Your task to perform on an android device: toggle javascript in the chrome app Image 0: 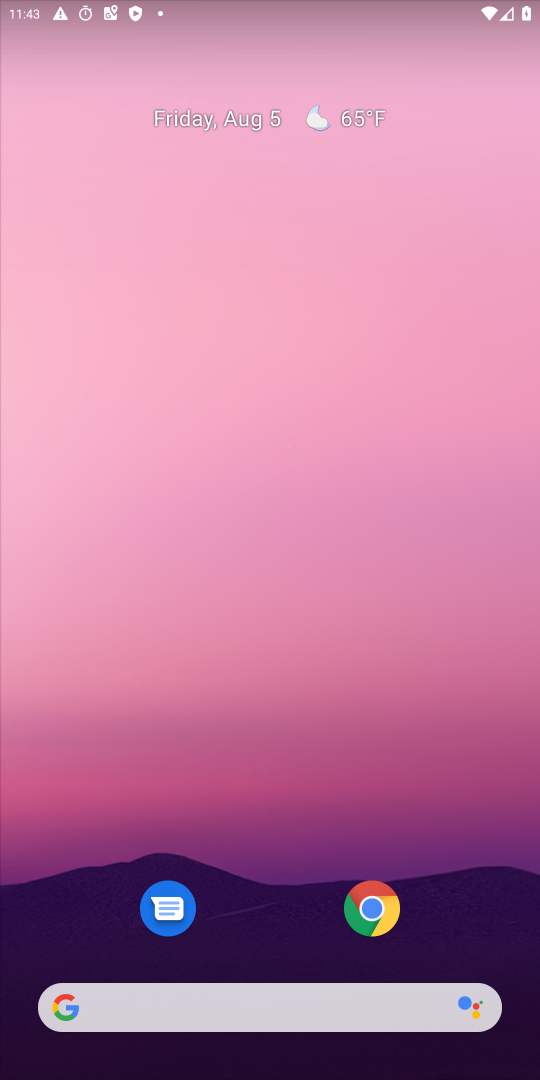
Step 0: click (380, 911)
Your task to perform on an android device: toggle javascript in the chrome app Image 1: 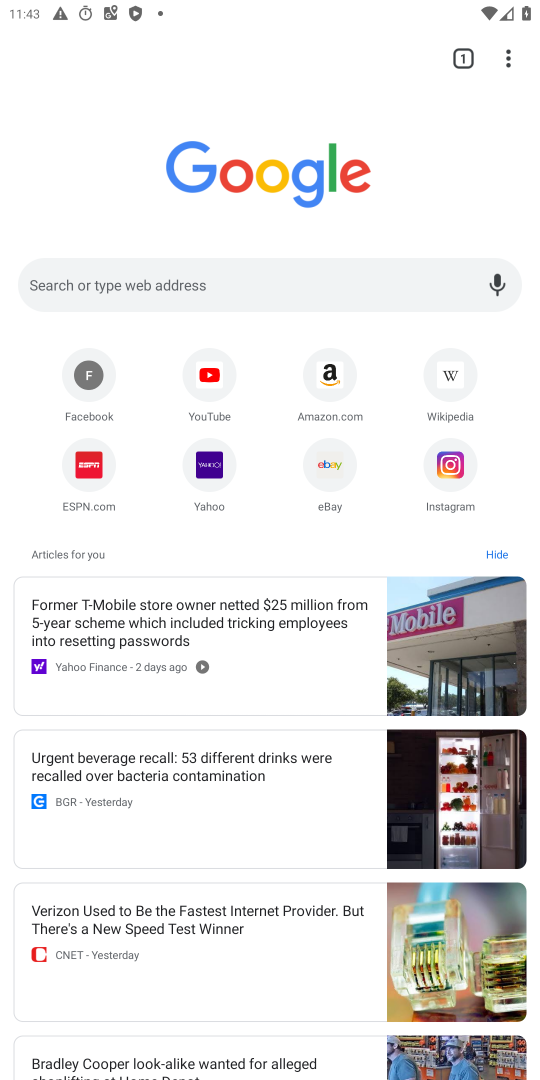
Step 1: click (509, 62)
Your task to perform on an android device: toggle javascript in the chrome app Image 2: 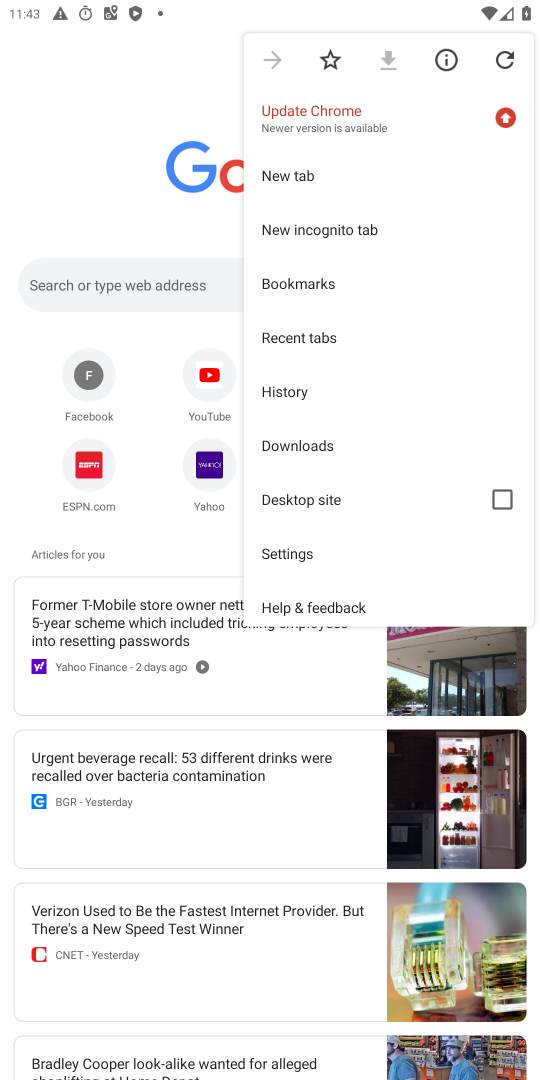
Step 2: click (288, 552)
Your task to perform on an android device: toggle javascript in the chrome app Image 3: 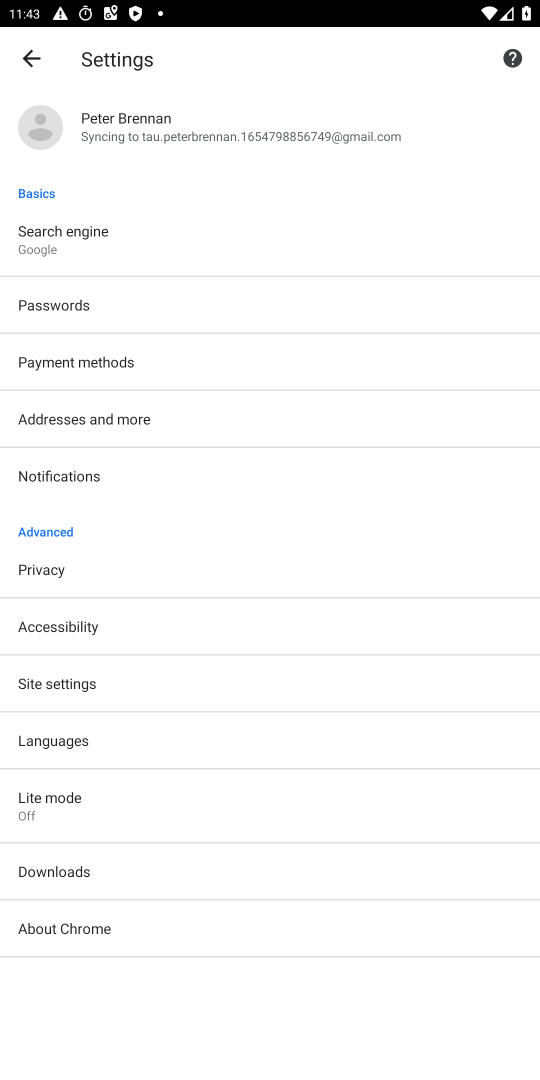
Step 3: click (45, 683)
Your task to perform on an android device: toggle javascript in the chrome app Image 4: 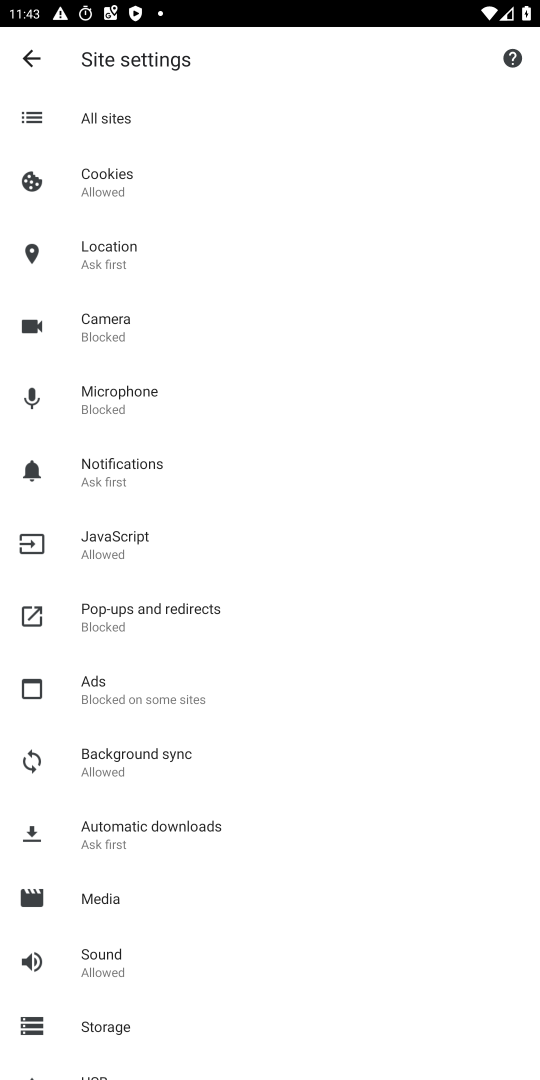
Step 4: click (133, 549)
Your task to perform on an android device: toggle javascript in the chrome app Image 5: 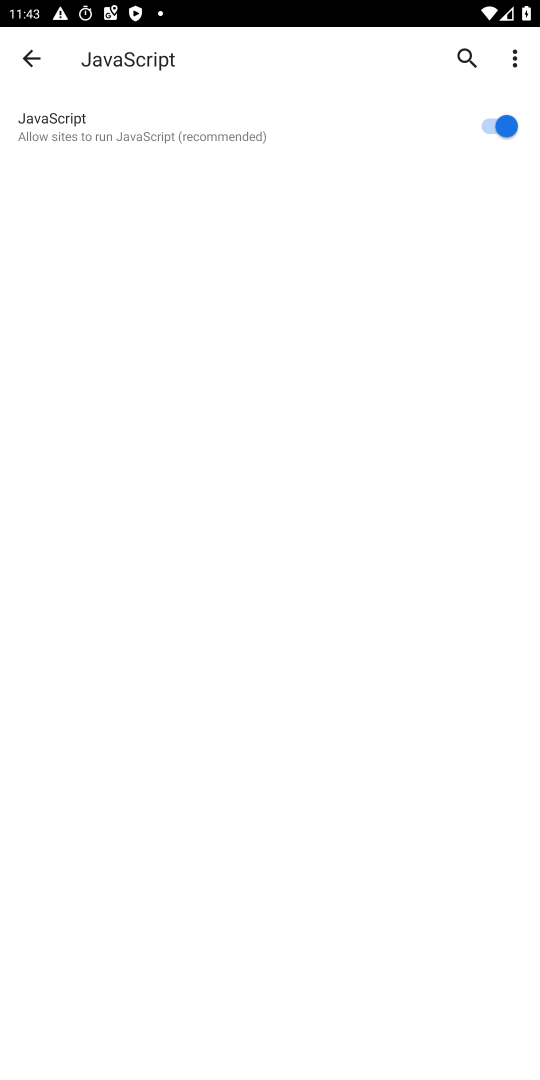
Step 5: task complete